Your task to perform on an android device: toggle wifi Image 0: 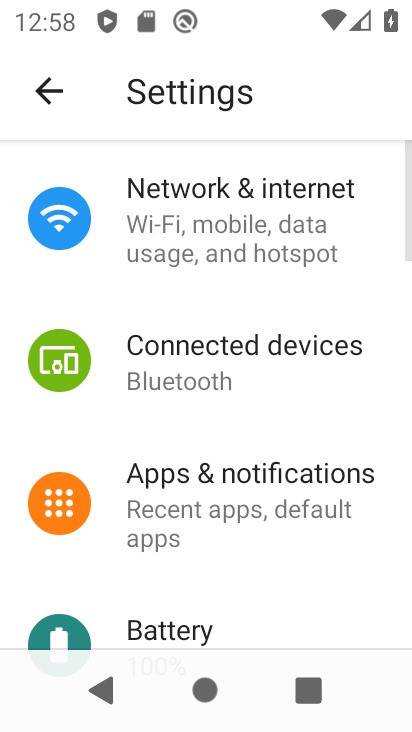
Step 0: click (285, 258)
Your task to perform on an android device: toggle wifi Image 1: 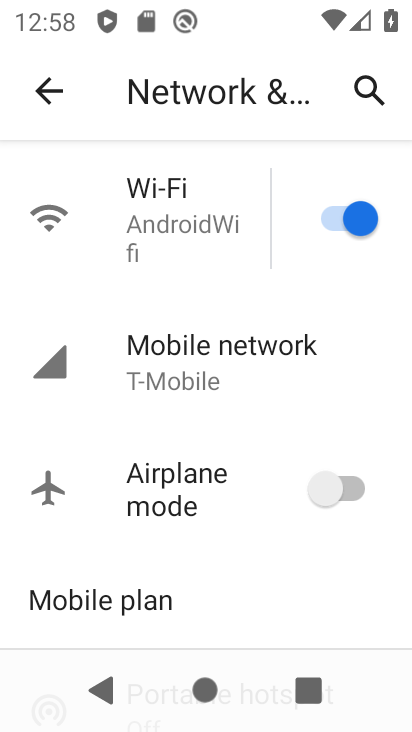
Step 1: click (345, 229)
Your task to perform on an android device: toggle wifi Image 2: 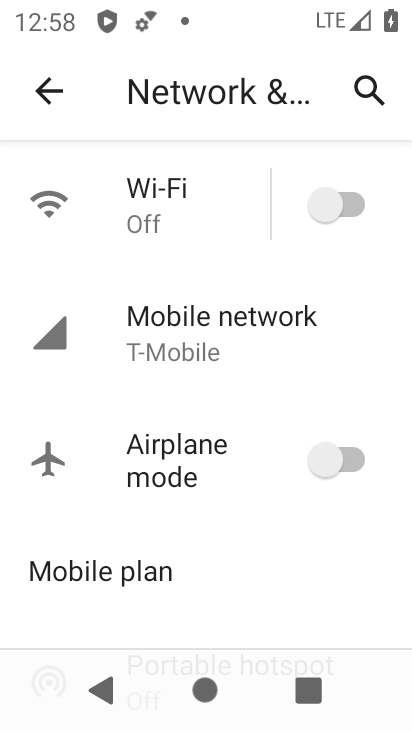
Step 2: task complete